Your task to perform on an android device: Empty the shopping cart on bestbuy. Search for dell alienware on bestbuy, select the first entry, and add it to the cart. Image 0: 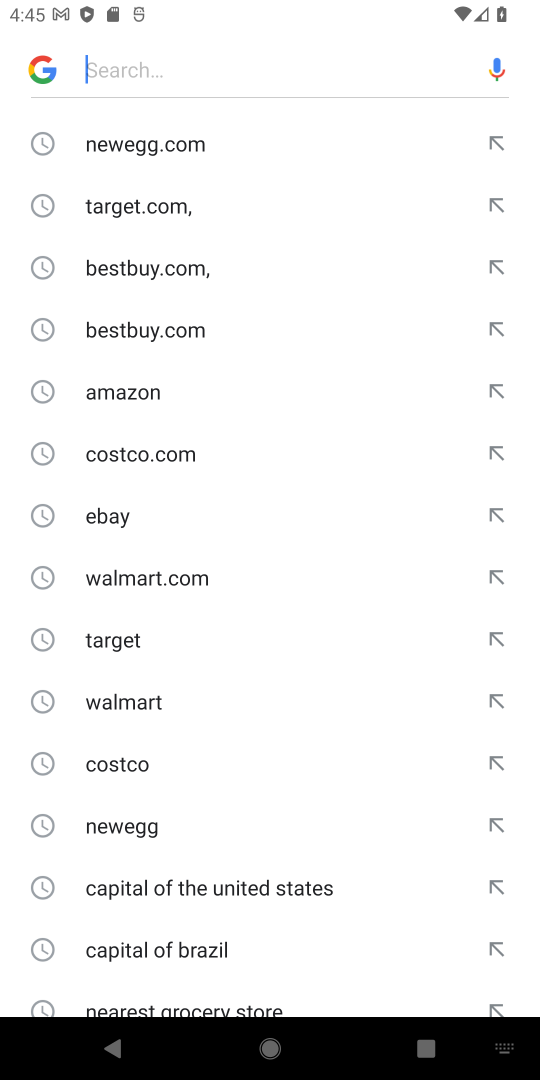
Step 0: press home button
Your task to perform on an android device: Empty the shopping cart on bestbuy. Search for dell alienware on bestbuy, select the first entry, and add it to the cart. Image 1: 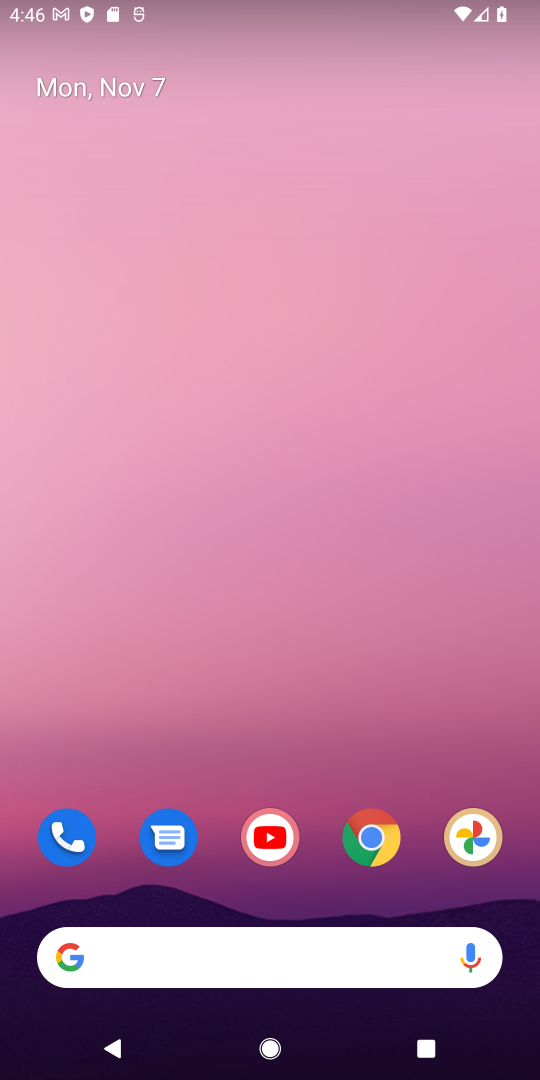
Step 1: click (378, 820)
Your task to perform on an android device: Empty the shopping cart on bestbuy. Search for dell alienware on bestbuy, select the first entry, and add it to the cart. Image 2: 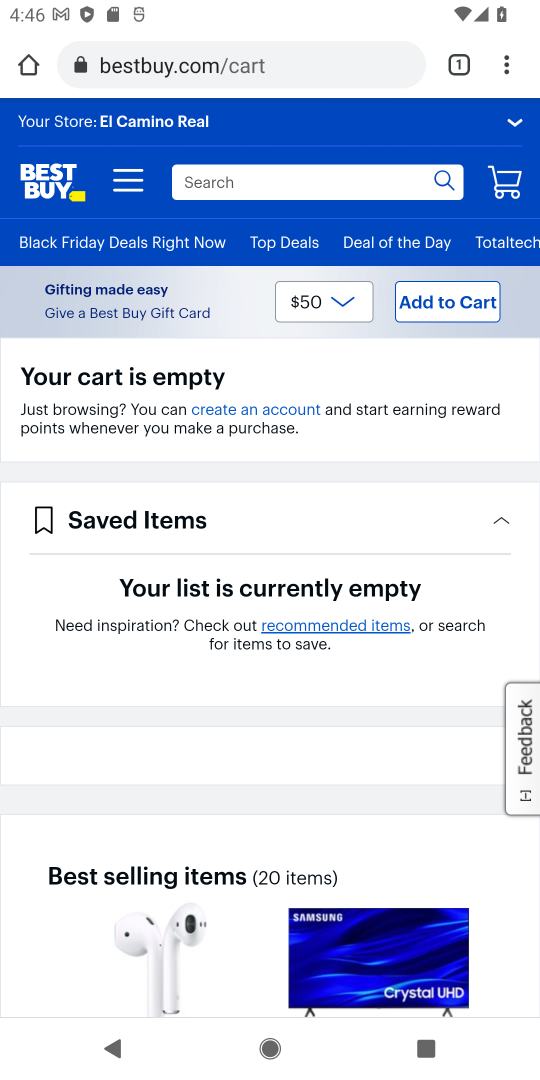
Step 2: click (358, 178)
Your task to perform on an android device: Empty the shopping cart on bestbuy. Search for dell alienware on bestbuy, select the first entry, and add it to the cart. Image 3: 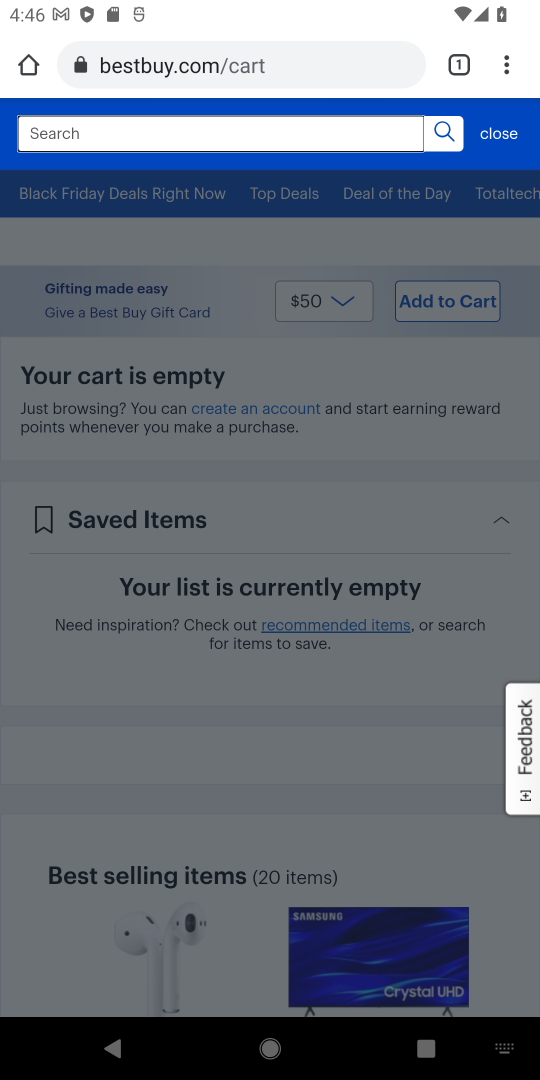
Step 3: type "dell alienware"
Your task to perform on an android device: Empty the shopping cart on bestbuy. Search for dell alienware on bestbuy, select the first entry, and add it to the cart. Image 4: 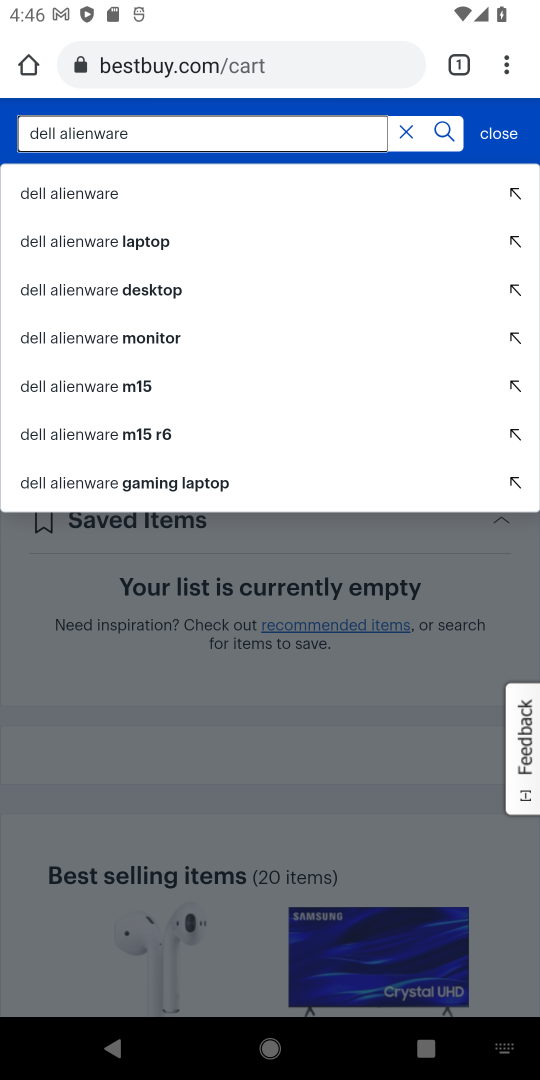
Step 4: click (183, 186)
Your task to perform on an android device: Empty the shopping cart on bestbuy. Search for dell alienware on bestbuy, select the first entry, and add it to the cart. Image 5: 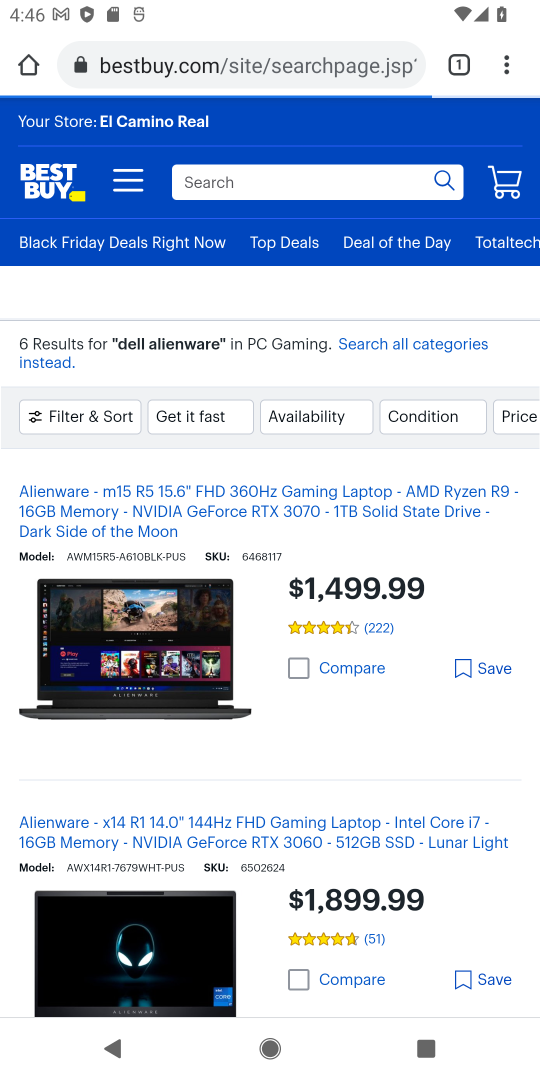
Step 5: press enter
Your task to perform on an android device: Empty the shopping cart on bestbuy. Search for dell alienware on bestbuy, select the first entry, and add it to the cart. Image 6: 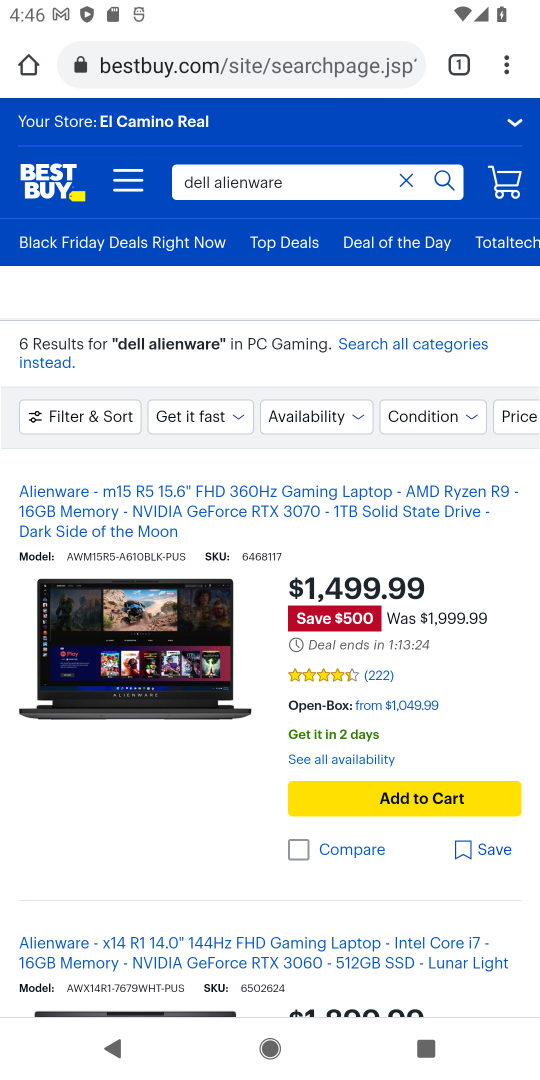
Step 6: click (218, 521)
Your task to perform on an android device: Empty the shopping cart on bestbuy. Search for dell alienware on bestbuy, select the first entry, and add it to the cart. Image 7: 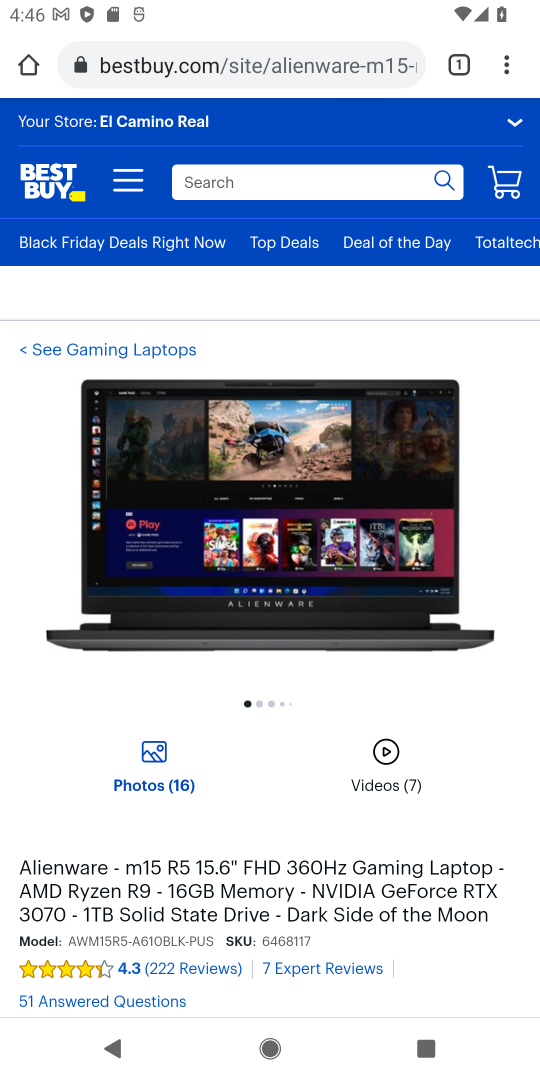
Step 7: drag from (406, 893) to (337, 310)
Your task to perform on an android device: Empty the shopping cart on bestbuy. Search for dell alienware on bestbuy, select the first entry, and add it to the cart. Image 8: 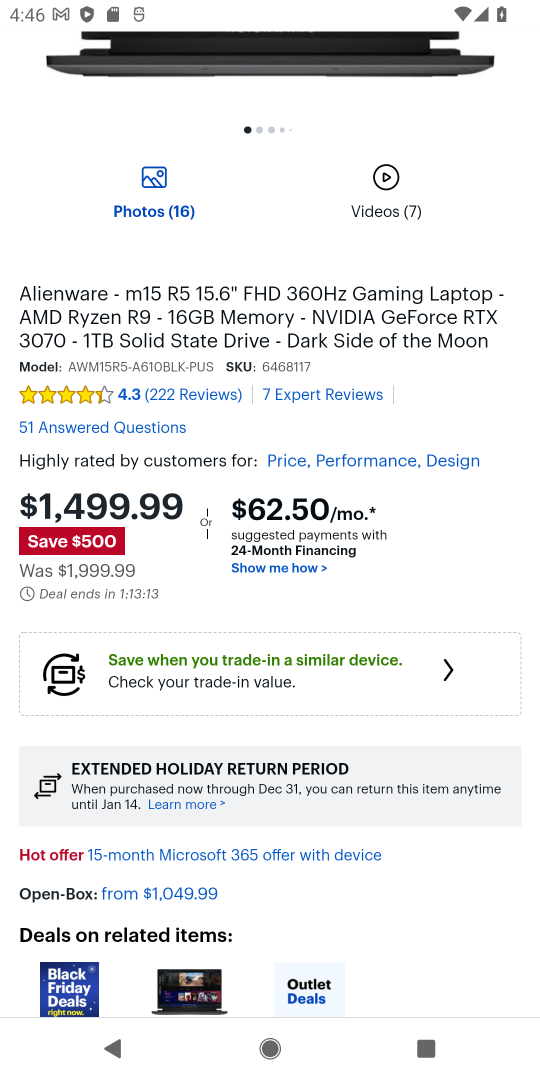
Step 8: drag from (372, 825) to (296, 341)
Your task to perform on an android device: Empty the shopping cart on bestbuy. Search for dell alienware on bestbuy, select the first entry, and add it to the cart. Image 9: 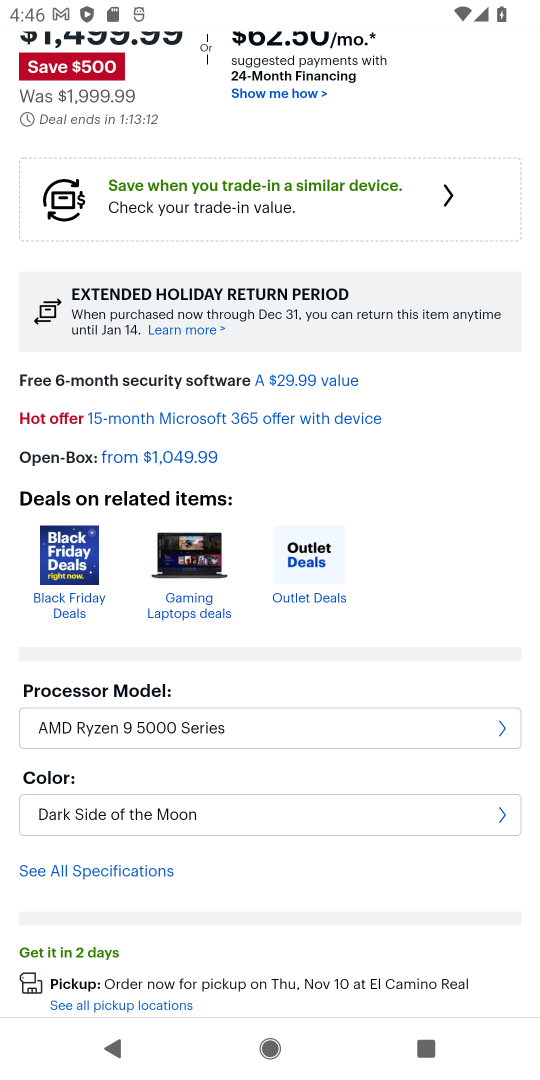
Step 9: drag from (302, 810) to (297, 91)
Your task to perform on an android device: Empty the shopping cart on bestbuy. Search for dell alienware on bestbuy, select the first entry, and add it to the cart. Image 10: 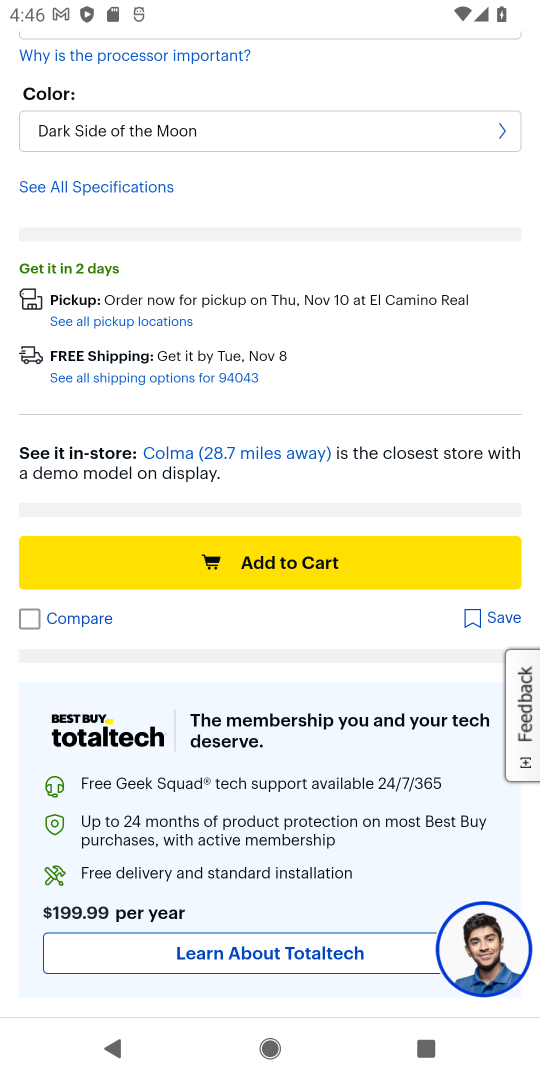
Step 10: click (347, 575)
Your task to perform on an android device: Empty the shopping cart on bestbuy. Search for dell alienware on bestbuy, select the first entry, and add it to the cart. Image 11: 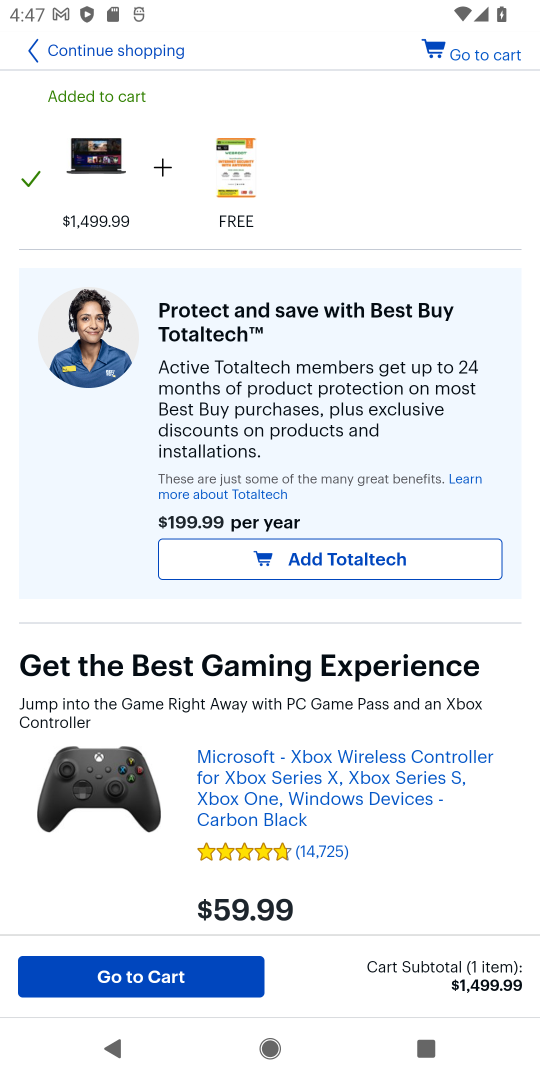
Step 11: click (213, 982)
Your task to perform on an android device: Empty the shopping cart on bestbuy. Search for dell alienware on bestbuy, select the first entry, and add it to the cart. Image 12: 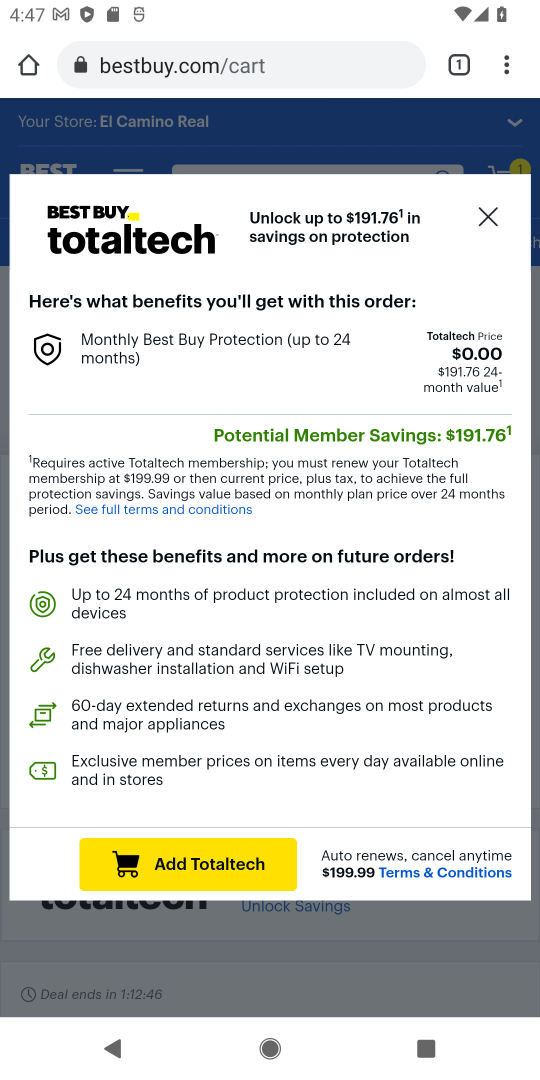
Step 12: task complete